Your task to perform on an android device: install app "Google Photos" Image 0: 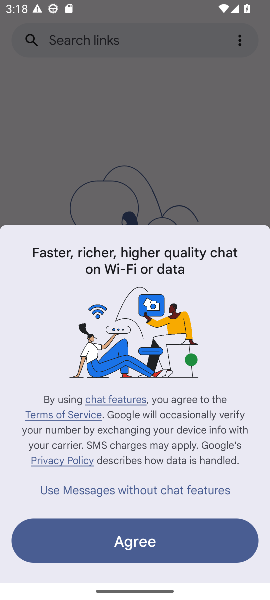
Step 0: press back button
Your task to perform on an android device: install app "Google Photos" Image 1: 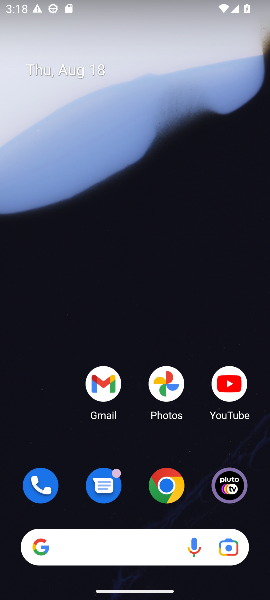
Step 1: click (168, 386)
Your task to perform on an android device: install app "Google Photos" Image 2: 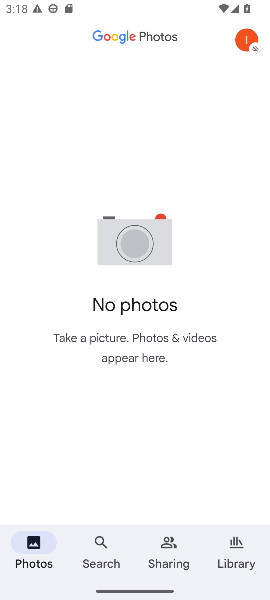
Step 2: task complete